Your task to perform on an android device: What is the news today? Image 0: 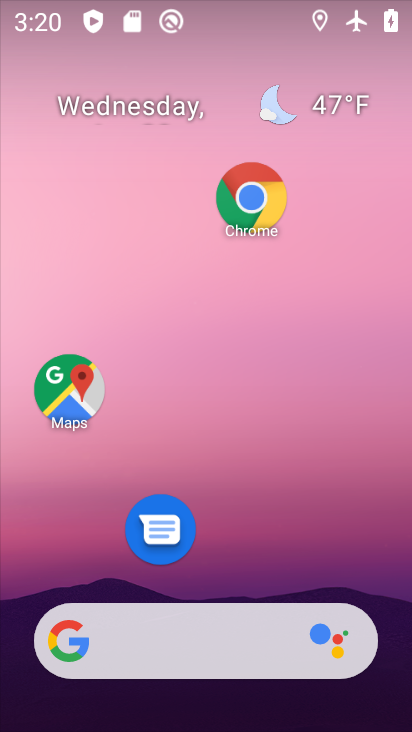
Step 0: click (217, 646)
Your task to perform on an android device: What is the news today? Image 1: 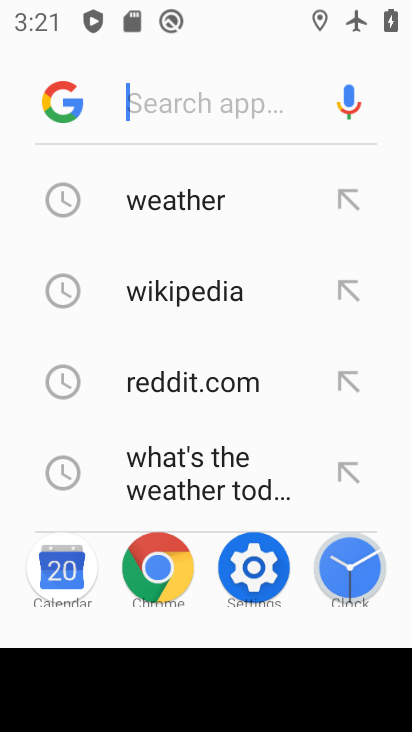
Step 1: type "what is the news today?"
Your task to perform on an android device: What is the news today? Image 2: 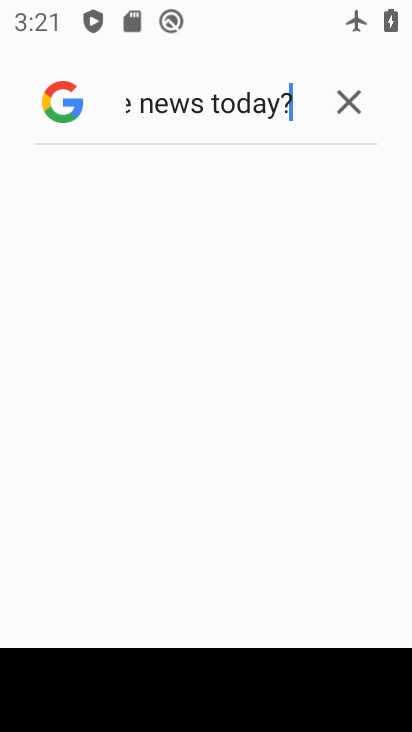
Step 2: task complete